Your task to perform on an android device: toggle pop-ups in chrome Image 0: 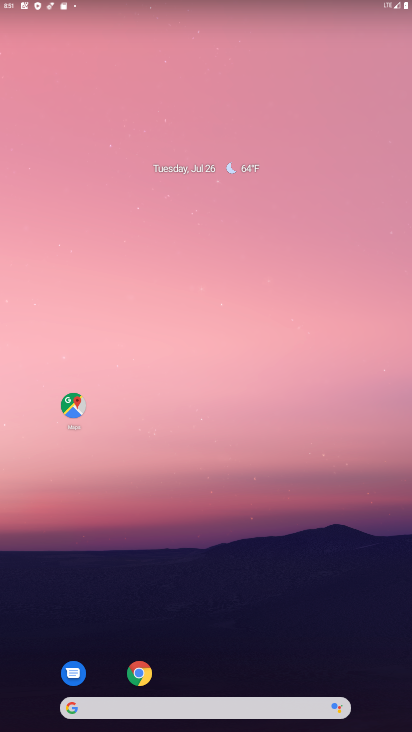
Step 0: drag from (195, 714) to (317, 37)
Your task to perform on an android device: toggle pop-ups in chrome Image 1: 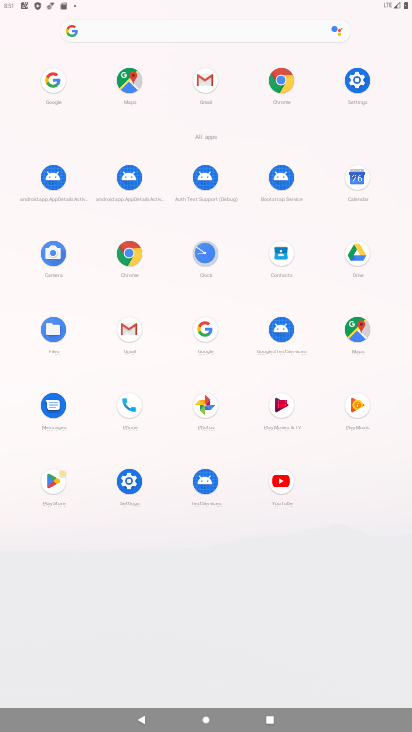
Step 1: click (135, 262)
Your task to perform on an android device: toggle pop-ups in chrome Image 2: 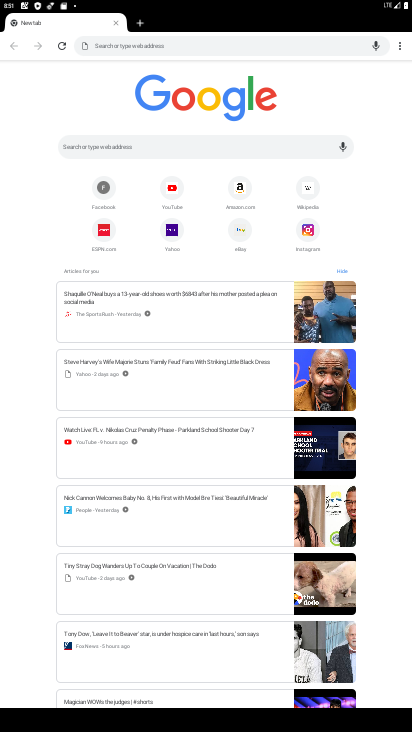
Step 2: click (397, 39)
Your task to perform on an android device: toggle pop-ups in chrome Image 3: 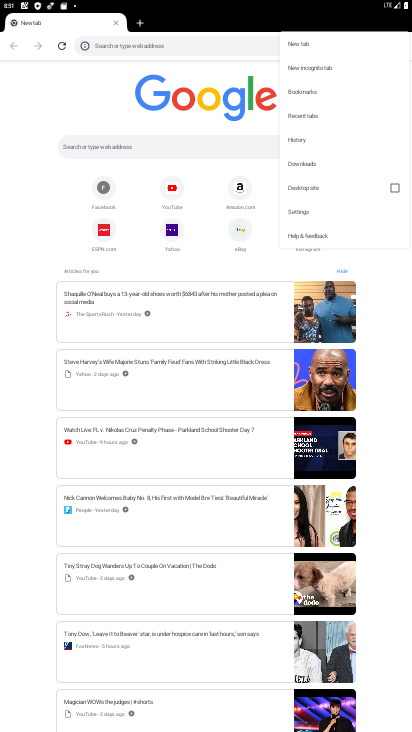
Step 3: click (317, 214)
Your task to perform on an android device: toggle pop-ups in chrome Image 4: 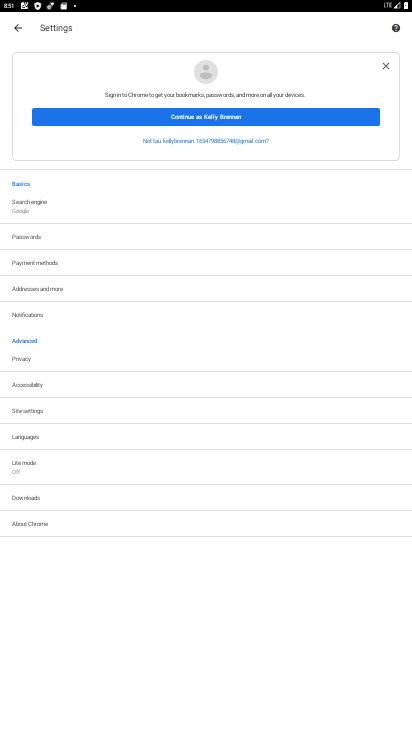
Step 4: click (35, 424)
Your task to perform on an android device: toggle pop-ups in chrome Image 5: 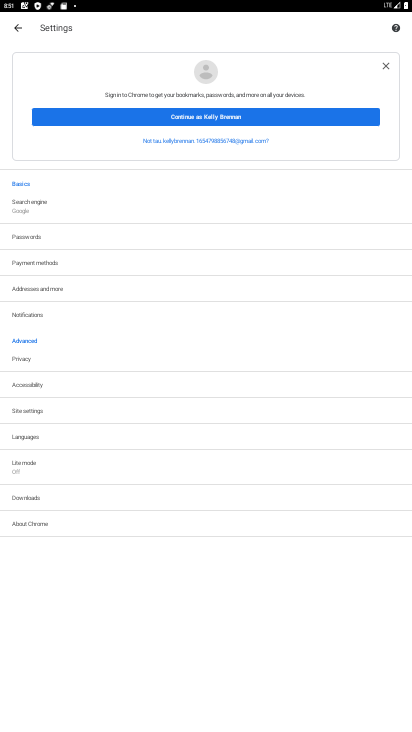
Step 5: click (36, 419)
Your task to perform on an android device: toggle pop-ups in chrome Image 6: 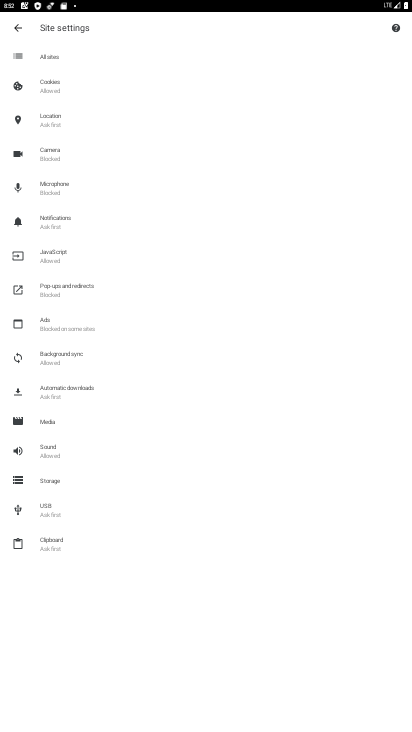
Step 6: click (71, 289)
Your task to perform on an android device: toggle pop-ups in chrome Image 7: 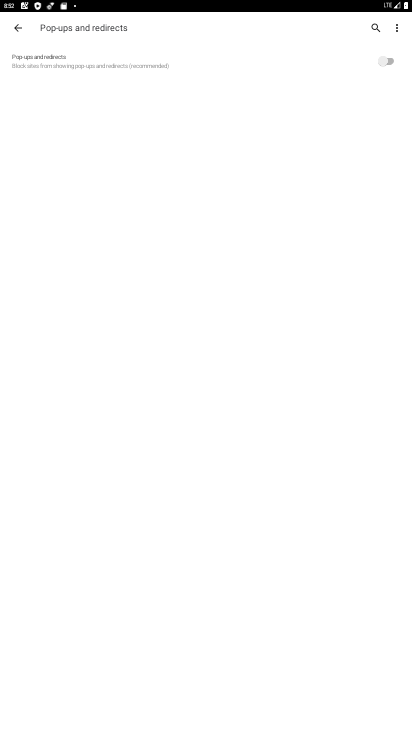
Step 7: click (392, 63)
Your task to perform on an android device: toggle pop-ups in chrome Image 8: 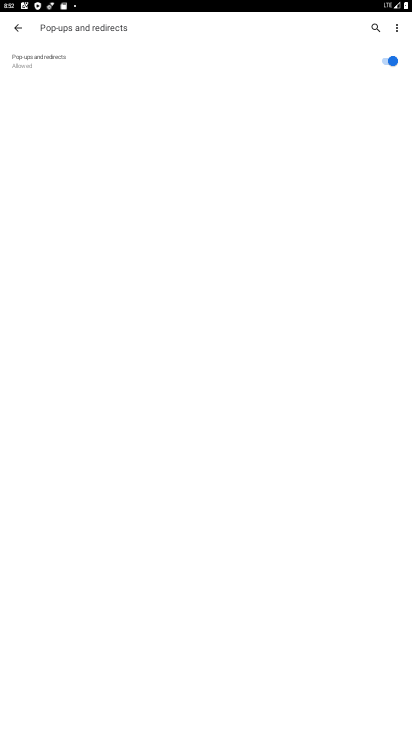
Step 8: task complete